Your task to perform on an android device: open app "Pandora - Music & Podcasts" (install if not already installed) Image 0: 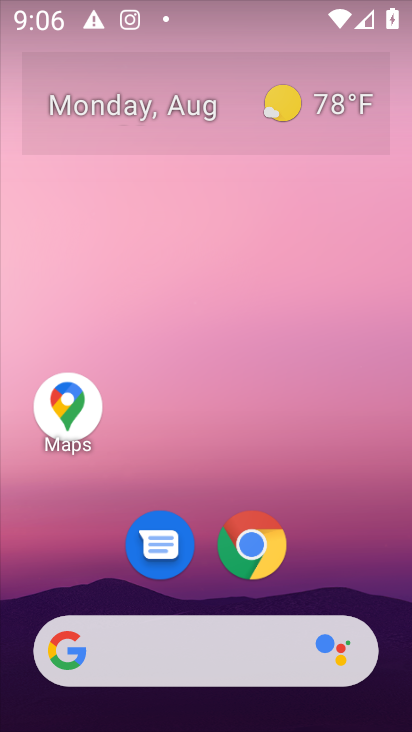
Step 0: press home button
Your task to perform on an android device: open app "Pandora - Music & Podcasts" (install if not already installed) Image 1: 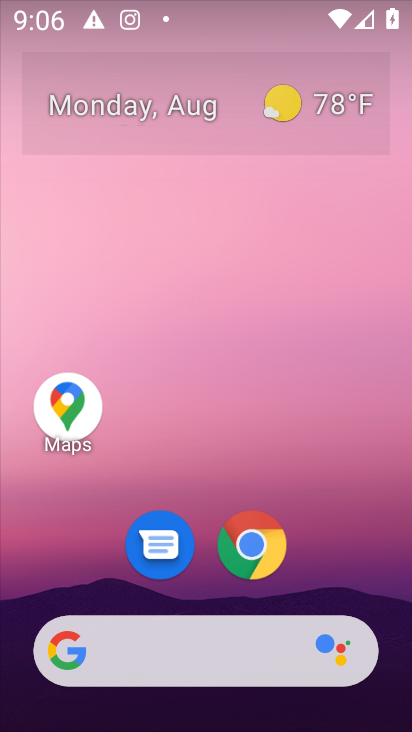
Step 1: drag from (358, 577) to (380, 140)
Your task to perform on an android device: open app "Pandora - Music & Podcasts" (install if not already installed) Image 2: 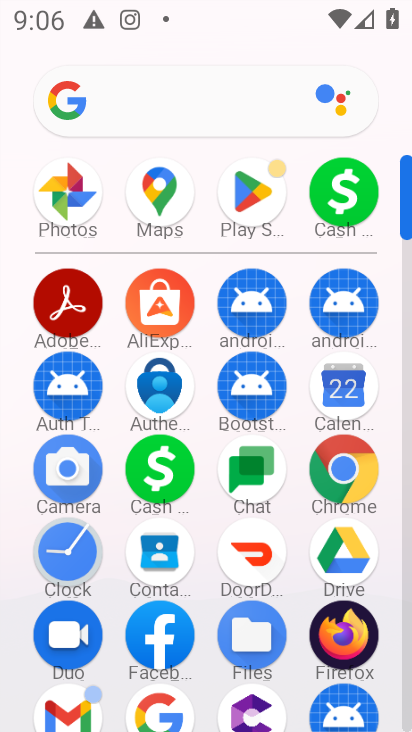
Step 2: click (254, 189)
Your task to perform on an android device: open app "Pandora - Music & Podcasts" (install if not already installed) Image 3: 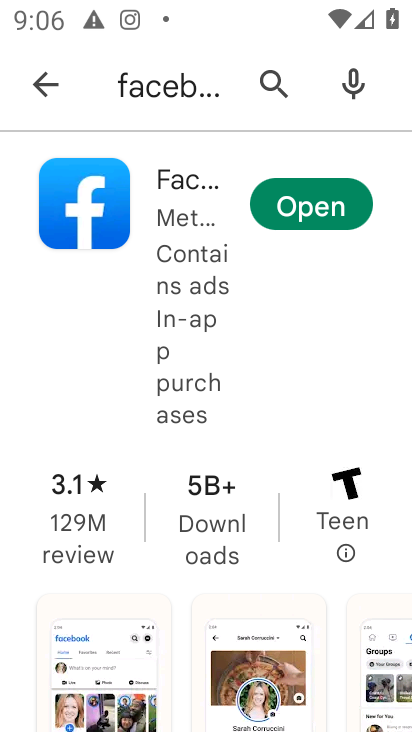
Step 3: press back button
Your task to perform on an android device: open app "Pandora - Music & Podcasts" (install if not already installed) Image 4: 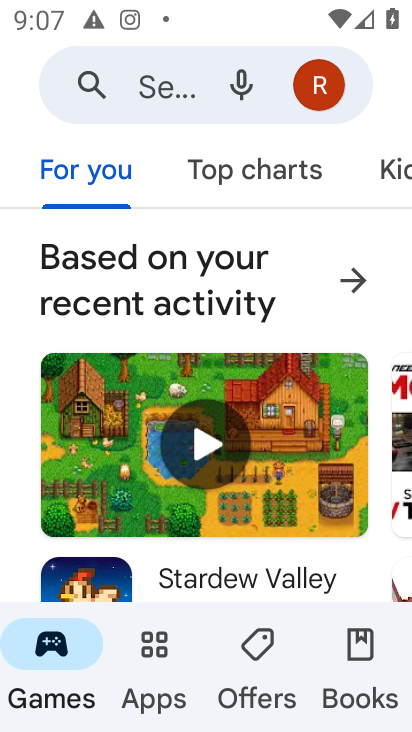
Step 4: click (176, 81)
Your task to perform on an android device: open app "Pandora - Music & Podcasts" (install if not already installed) Image 5: 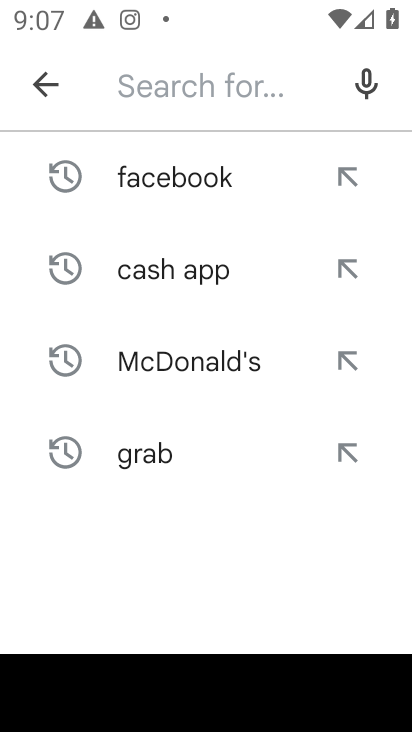
Step 5: type "Pandora - Music & Podcasts"
Your task to perform on an android device: open app "Pandora - Music & Podcasts" (install if not already installed) Image 6: 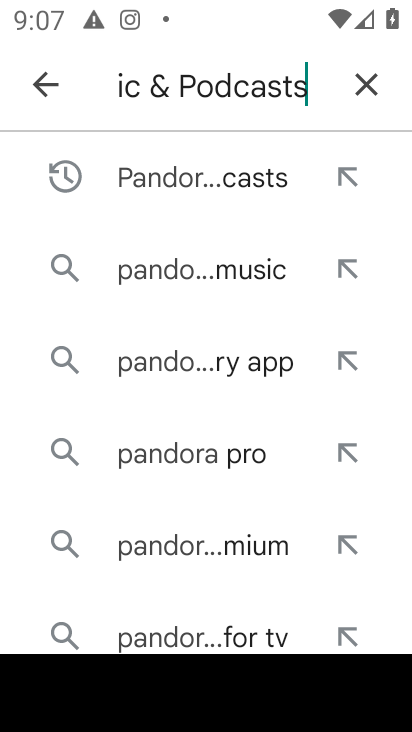
Step 6: press enter
Your task to perform on an android device: open app "Pandora - Music & Podcasts" (install if not already installed) Image 7: 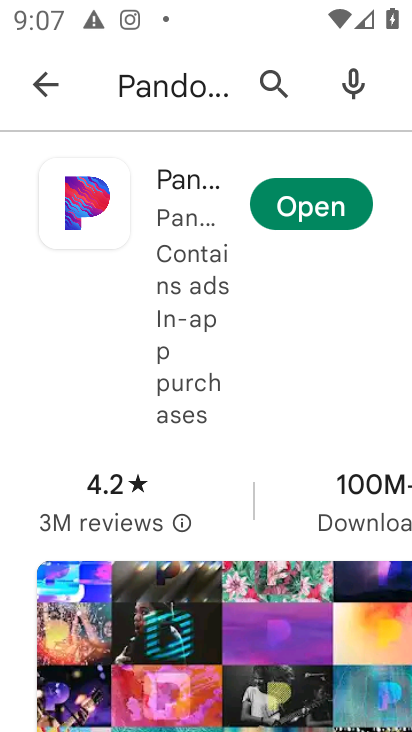
Step 7: click (331, 195)
Your task to perform on an android device: open app "Pandora - Music & Podcasts" (install if not already installed) Image 8: 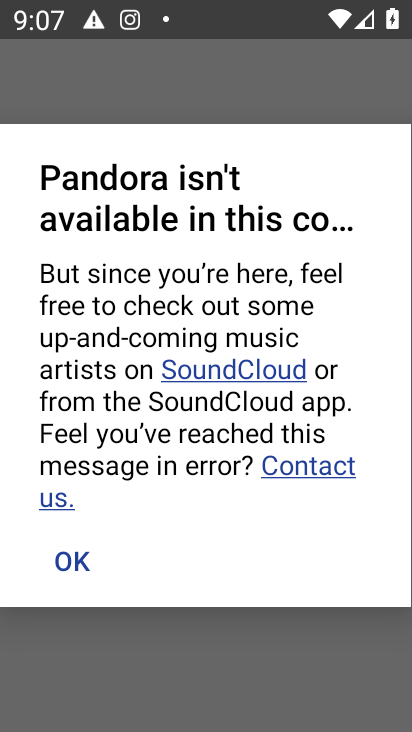
Step 8: task complete